Your task to perform on an android device: choose inbox layout in the gmail app Image 0: 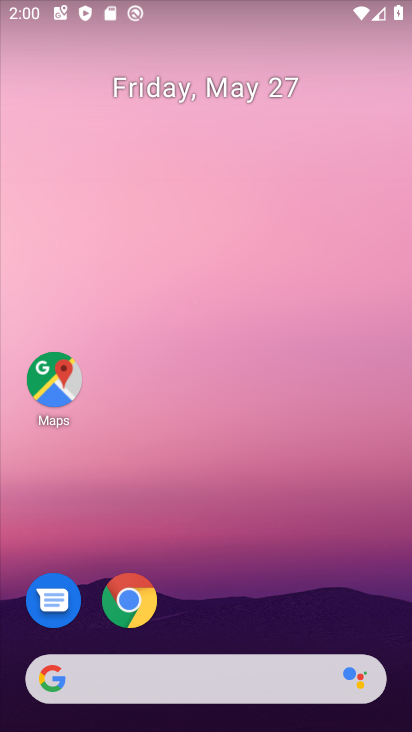
Step 0: drag from (230, 722) to (243, 59)
Your task to perform on an android device: choose inbox layout in the gmail app Image 1: 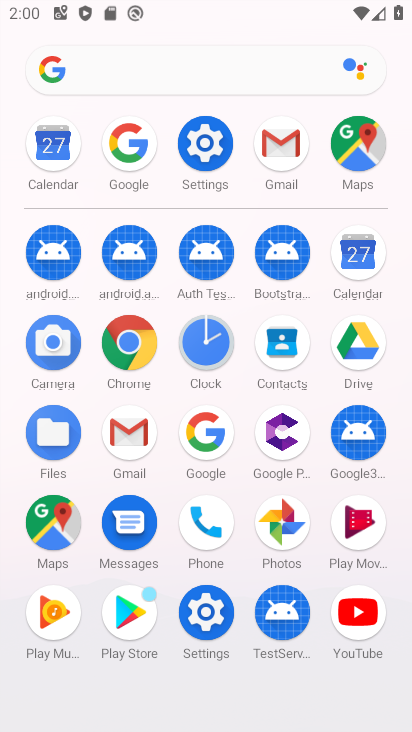
Step 1: click (128, 434)
Your task to perform on an android device: choose inbox layout in the gmail app Image 2: 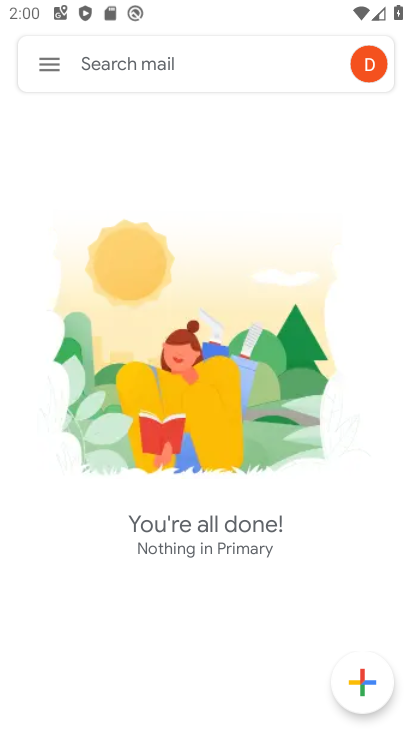
Step 2: click (48, 58)
Your task to perform on an android device: choose inbox layout in the gmail app Image 3: 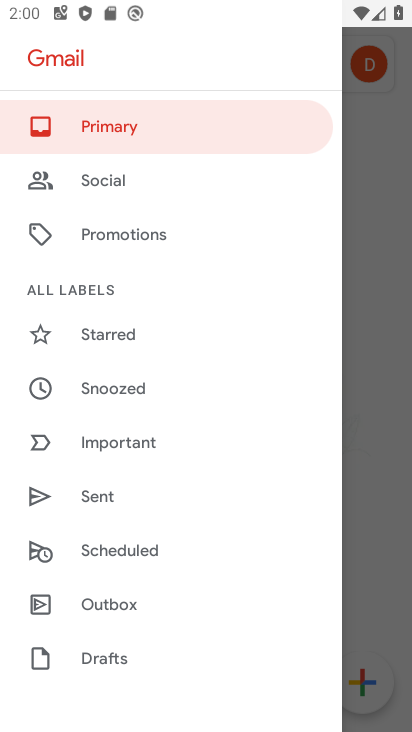
Step 3: drag from (122, 652) to (174, 239)
Your task to perform on an android device: choose inbox layout in the gmail app Image 4: 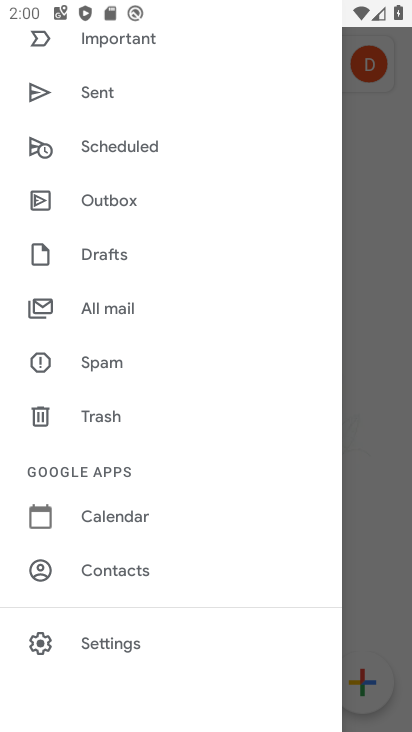
Step 4: click (96, 641)
Your task to perform on an android device: choose inbox layout in the gmail app Image 5: 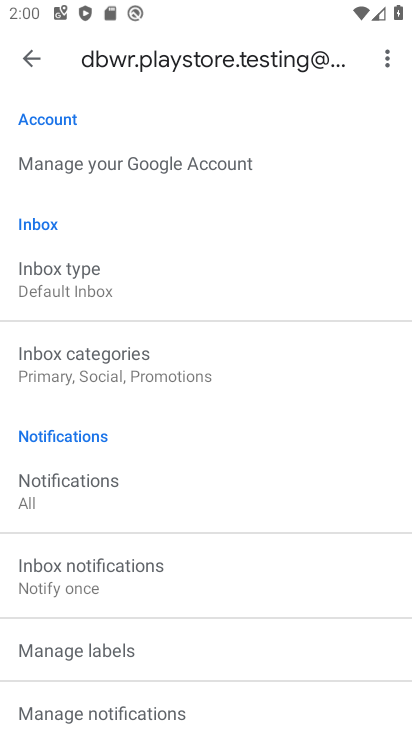
Step 5: click (75, 281)
Your task to perform on an android device: choose inbox layout in the gmail app Image 6: 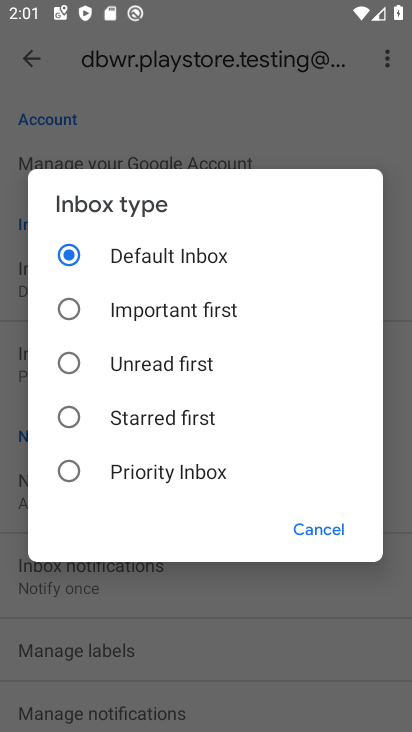
Step 6: click (69, 304)
Your task to perform on an android device: choose inbox layout in the gmail app Image 7: 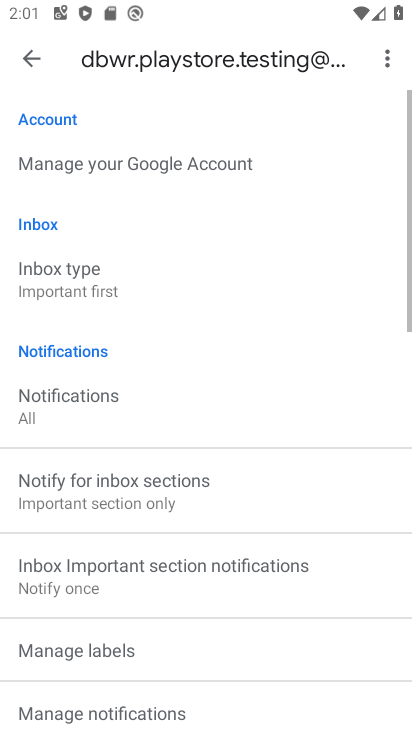
Step 7: task complete